Your task to perform on an android device: toggle javascript in the chrome app Image 0: 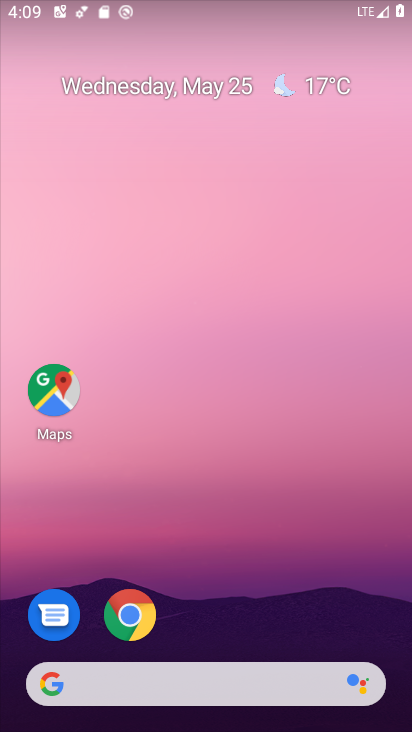
Step 0: click (124, 628)
Your task to perform on an android device: toggle javascript in the chrome app Image 1: 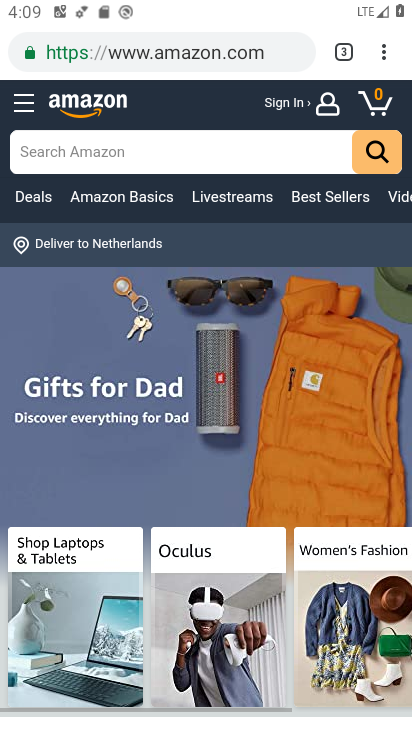
Step 1: click (383, 49)
Your task to perform on an android device: toggle javascript in the chrome app Image 2: 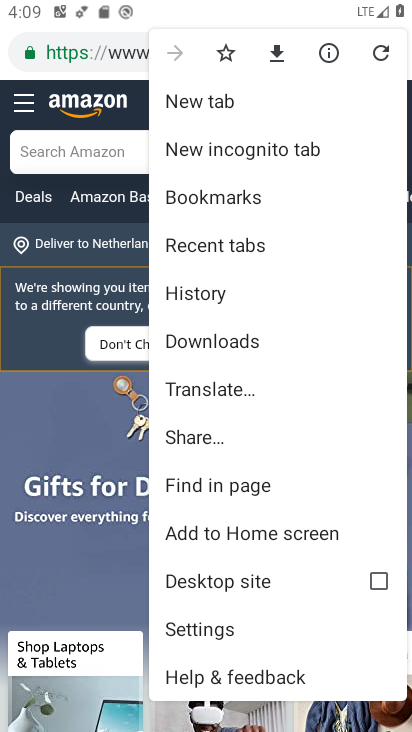
Step 2: click (245, 613)
Your task to perform on an android device: toggle javascript in the chrome app Image 3: 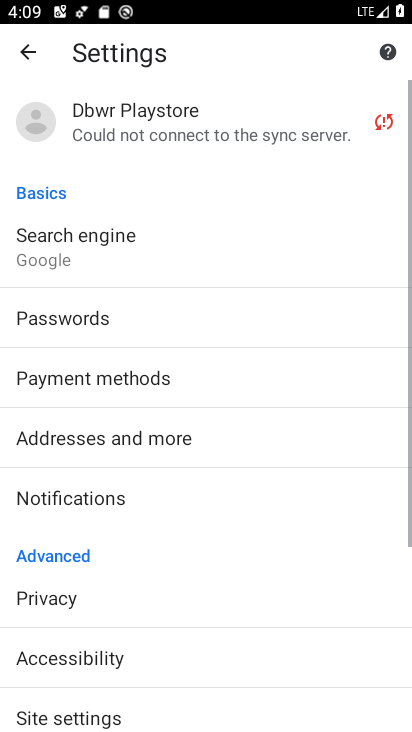
Step 3: drag from (211, 547) to (211, 118)
Your task to perform on an android device: toggle javascript in the chrome app Image 4: 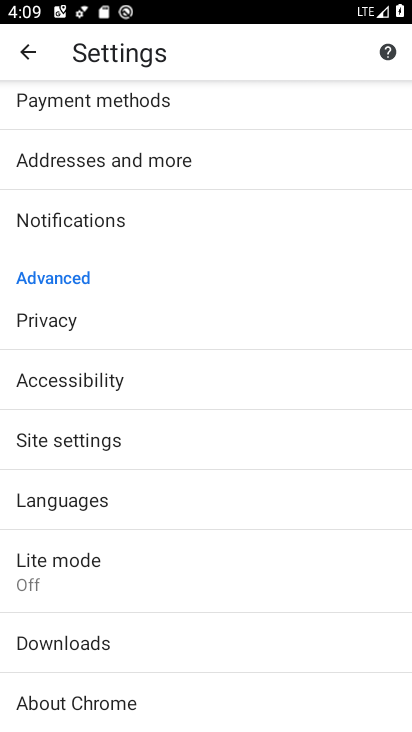
Step 4: click (127, 448)
Your task to perform on an android device: toggle javascript in the chrome app Image 5: 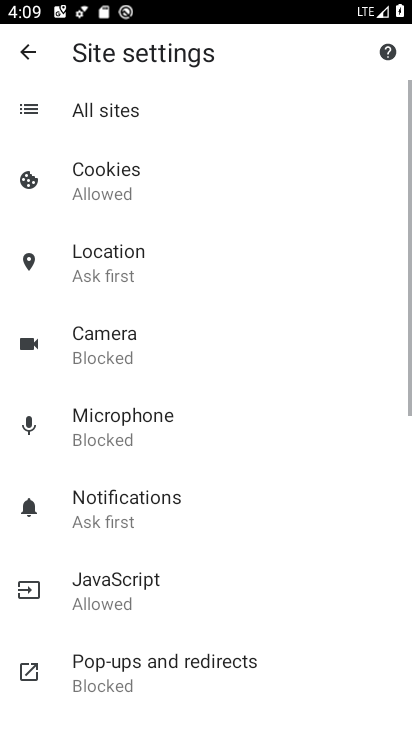
Step 5: click (161, 577)
Your task to perform on an android device: toggle javascript in the chrome app Image 6: 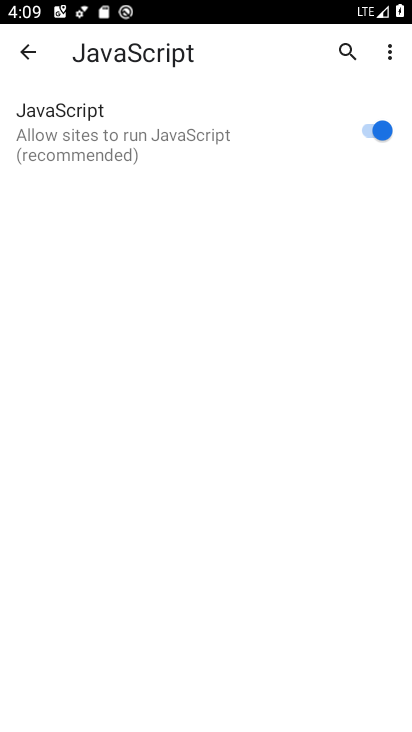
Step 6: click (375, 115)
Your task to perform on an android device: toggle javascript in the chrome app Image 7: 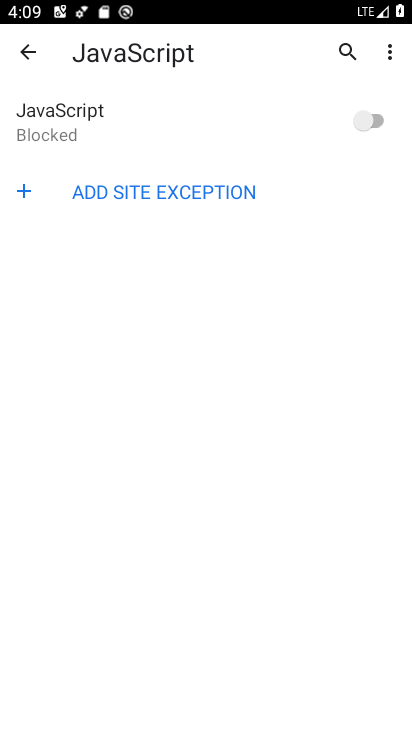
Step 7: task complete